Your task to perform on an android device: open chrome and create a bookmark for the current page Image 0: 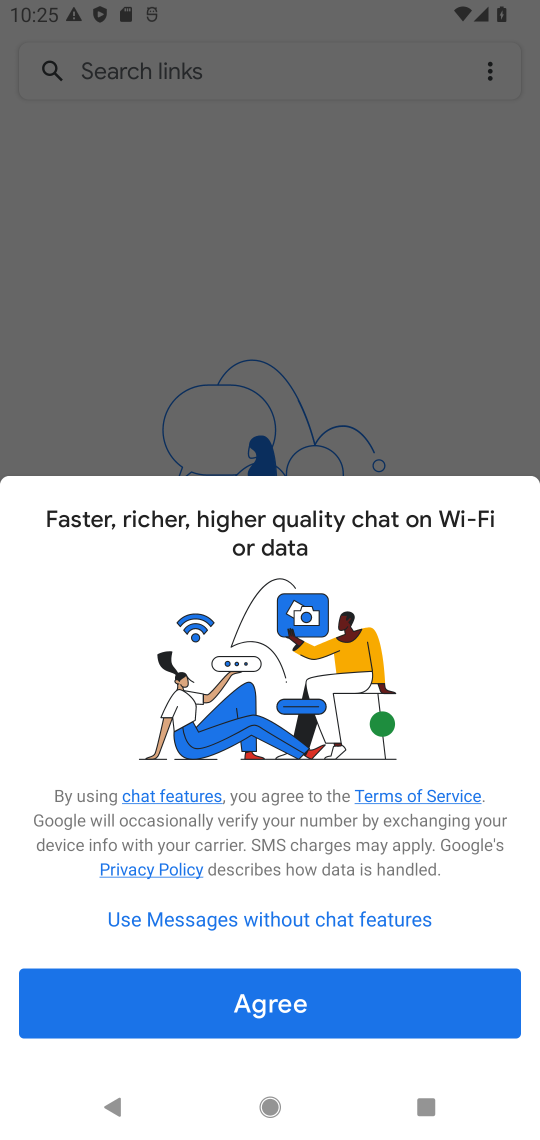
Step 0: press home button
Your task to perform on an android device: open chrome and create a bookmark for the current page Image 1: 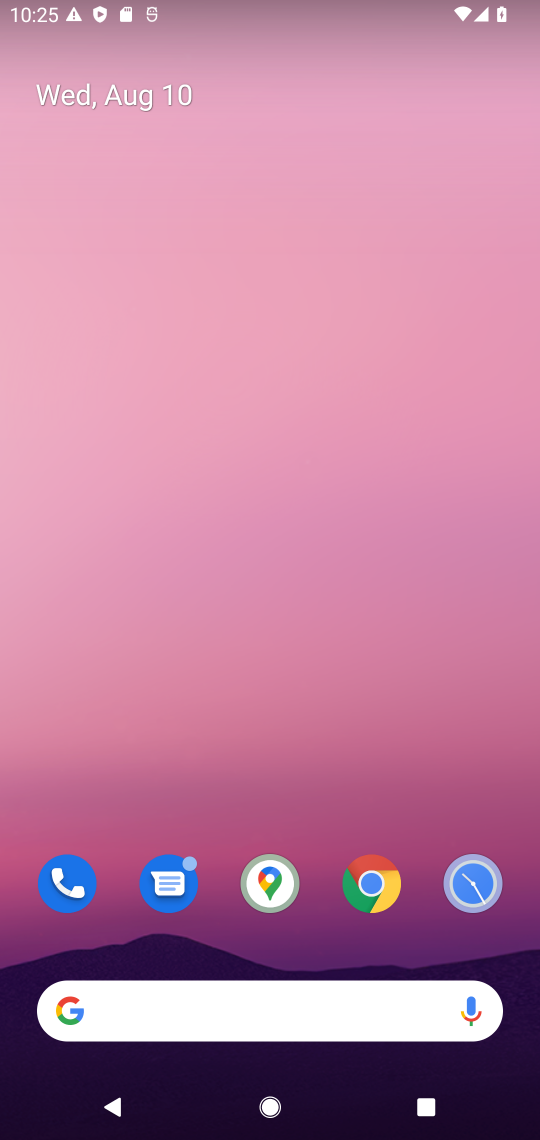
Step 1: drag from (373, 959) to (381, 0)
Your task to perform on an android device: open chrome and create a bookmark for the current page Image 2: 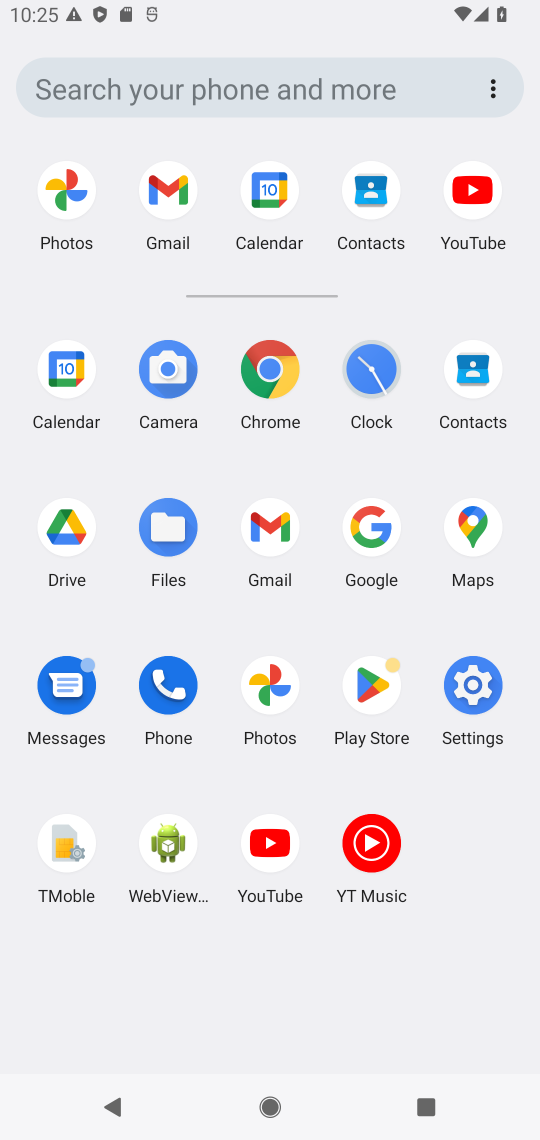
Step 2: click (269, 379)
Your task to perform on an android device: open chrome and create a bookmark for the current page Image 3: 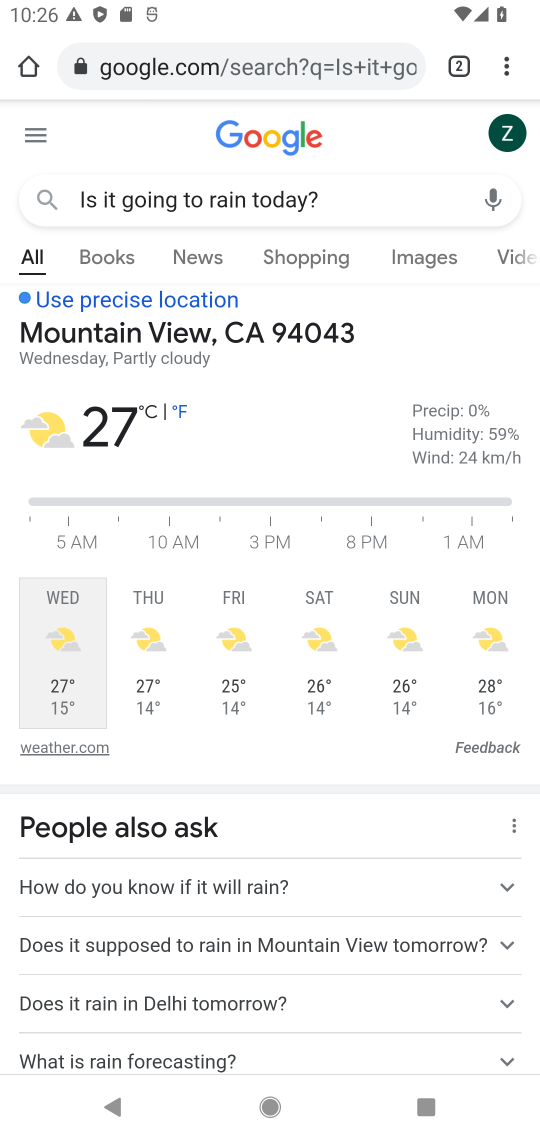
Step 3: click (505, 70)
Your task to perform on an android device: open chrome and create a bookmark for the current page Image 4: 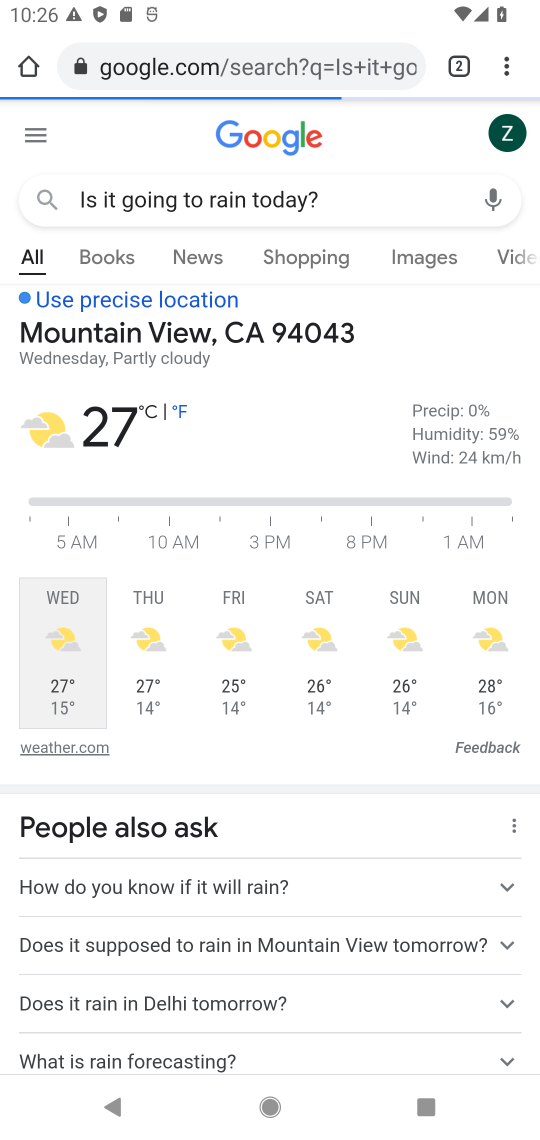
Step 4: task complete